Your task to perform on an android device: change the upload size in google photos Image 0: 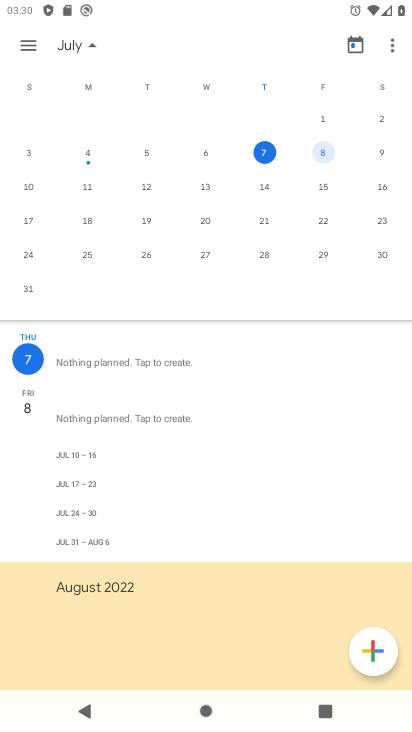
Step 0: press home button
Your task to perform on an android device: change the upload size in google photos Image 1: 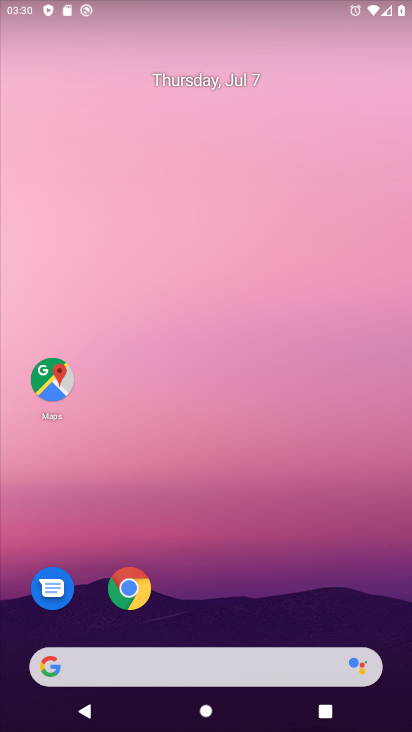
Step 1: drag from (145, 651) to (187, 151)
Your task to perform on an android device: change the upload size in google photos Image 2: 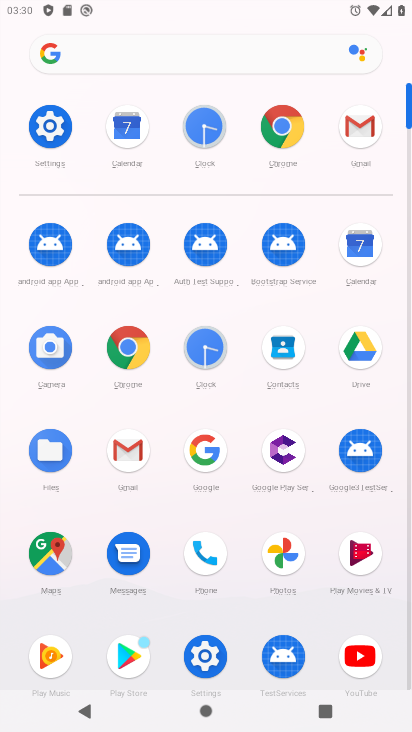
Step 2: click (275, 551)
Your task to perform on an android device: change the upload size in google photos Image 3: 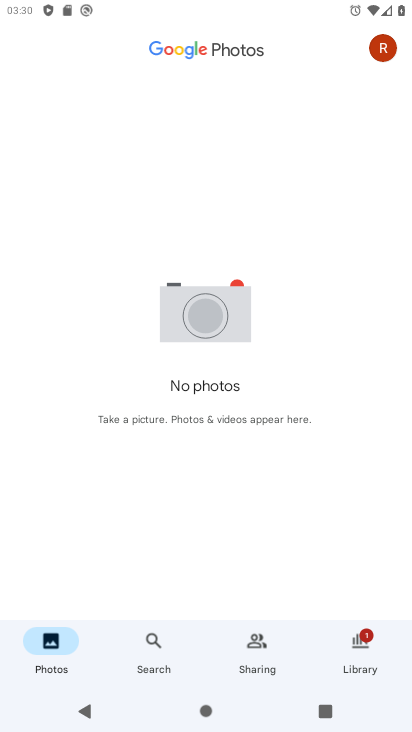
Step 3: click (389, 55)
Your task to perform on an android device: change the upload size in google photos Image 4: 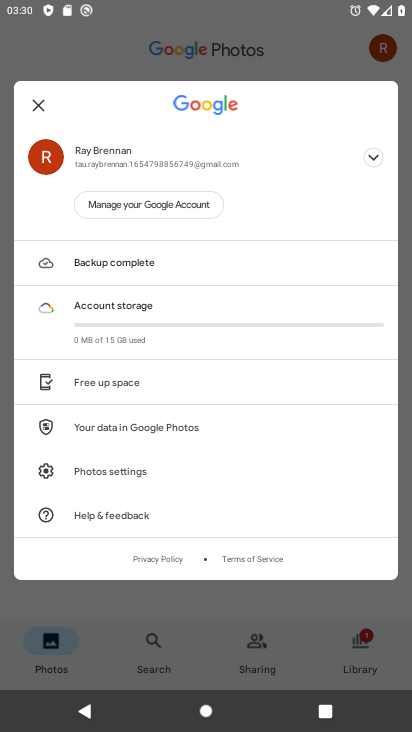
Step 4: click (105, 473)
Your task to perform on an android device: change the upload size in google photos Image 5: 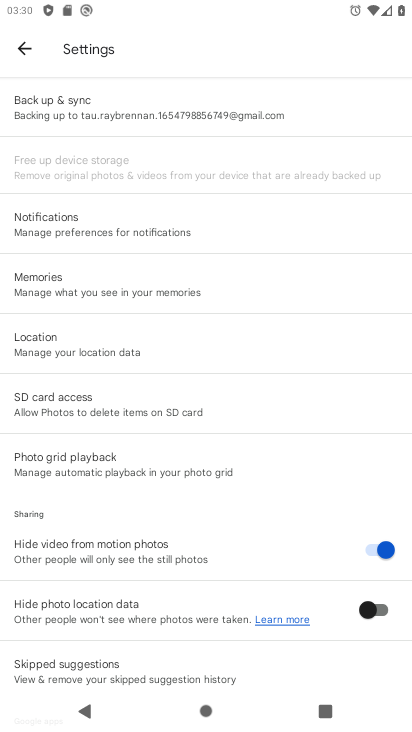
Step 5: click (71, 102)
Your task to perform on an android device: change the upload size in google photos Image 6: 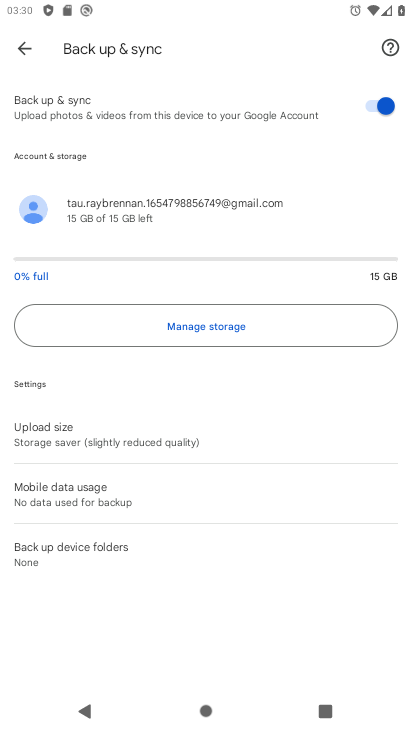
Step 6: click (32, 448)
Your task to perform on an android device: change the upload size in google photos Image 7: 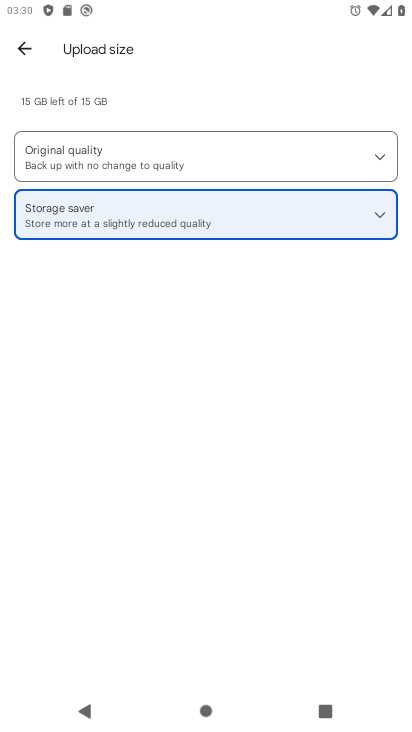
Step 7: click (91, 143)
Your task to perform on an android device: change the upload size in google photos Image 8: 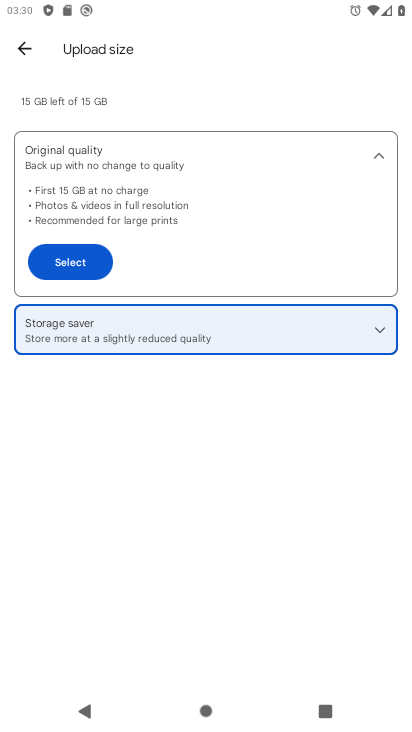
Step 8: click (77, 263)
Your task to perform on an android device: change the upload size in google photos Image 9: 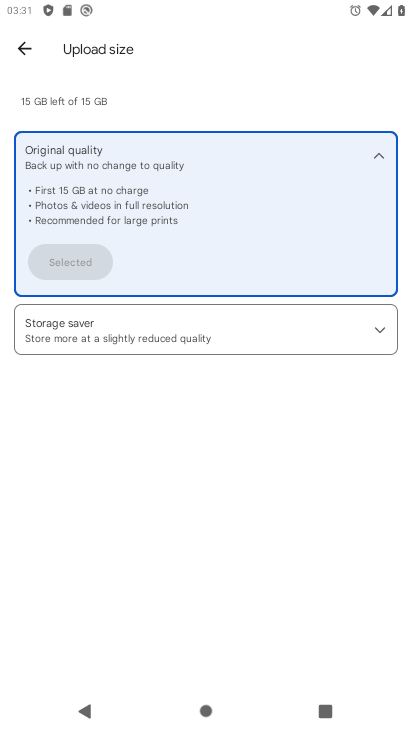
Step 9: task complete